Your task to perform on an android device: Open location settings Image 0: 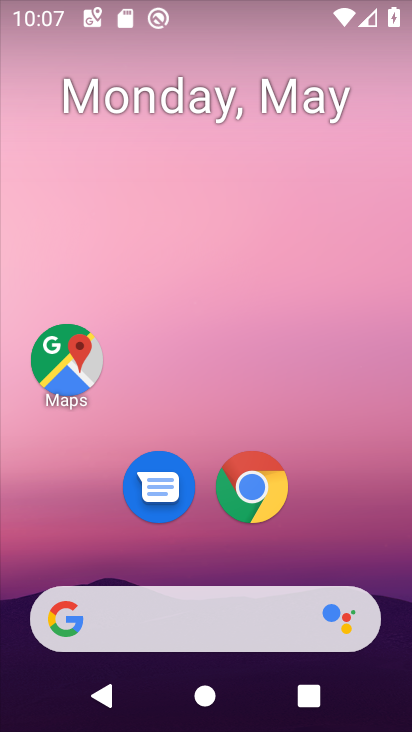
Step 0: drag from (320, 536) to (316, 55)
Your task to perform on an android device: Open location settings Image 1: 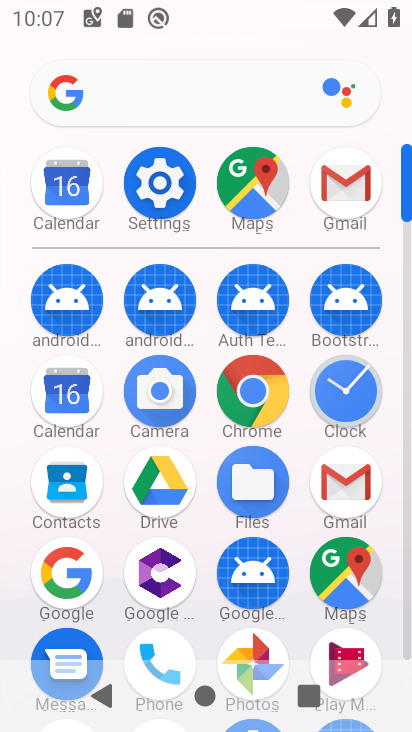
Step 1: click (164, 192)
Your task to perform on an android device: Open location settings Image 2: 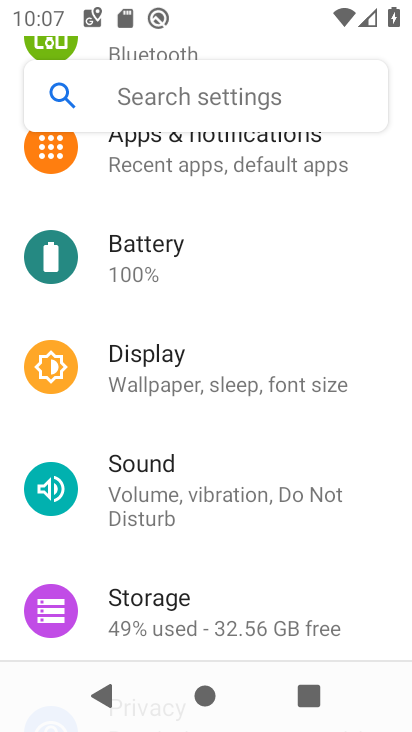
Step 2: click (187, 448)
Your task to perform on an android device: Open location settings Image 3: 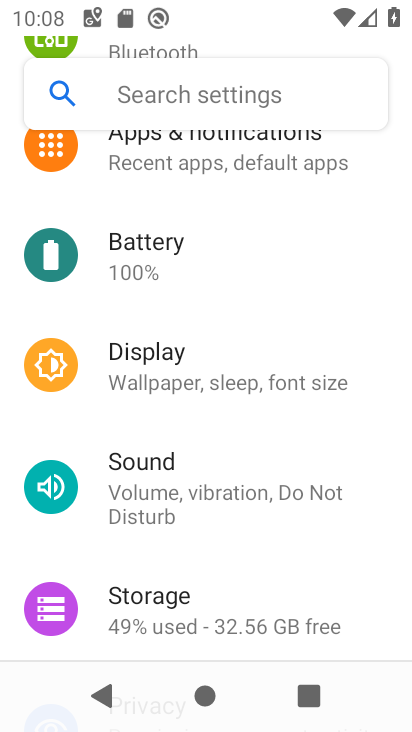
Step 3: drag from (208, 493) to (210, 387)
Your task to perform on an android device: Open location settings Image 4: 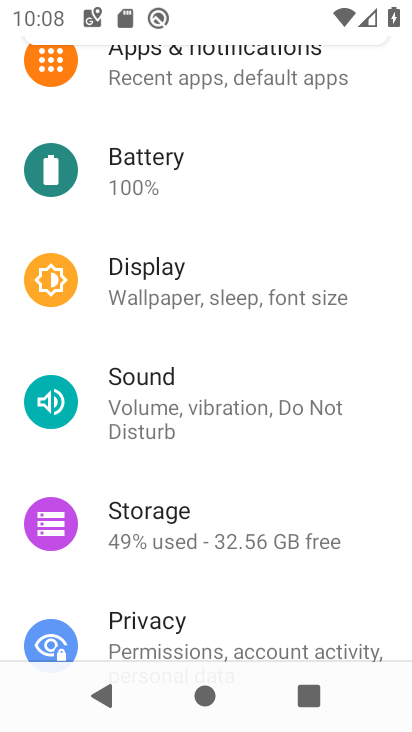
Step 4: drag from (169, 542) to (170, 370)
Your task to perform on an android device: Open location settings Image 5: 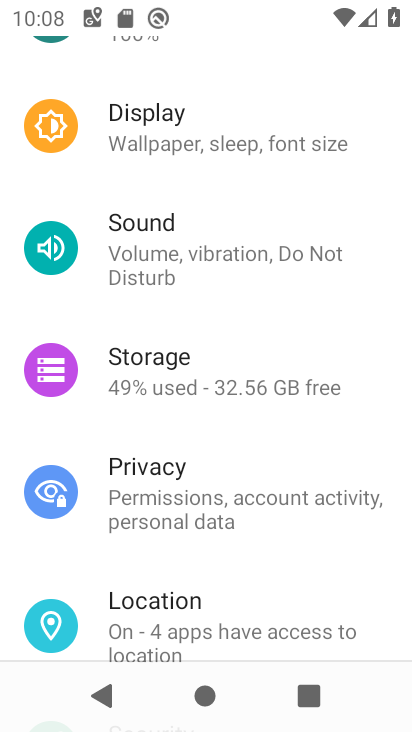
Step 5: drag from (179, 486) to (211, 267)
Your task to perform on an android device: Open location settings Image 6: 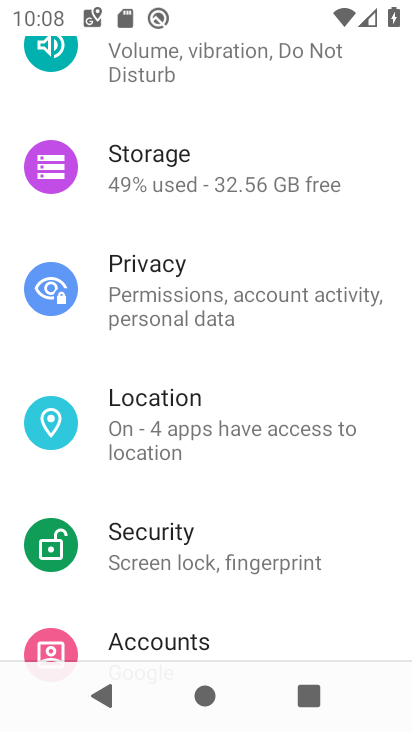
Step 6: click (190, 432)
Your task to perform on an android device: Open location settings Image 7: 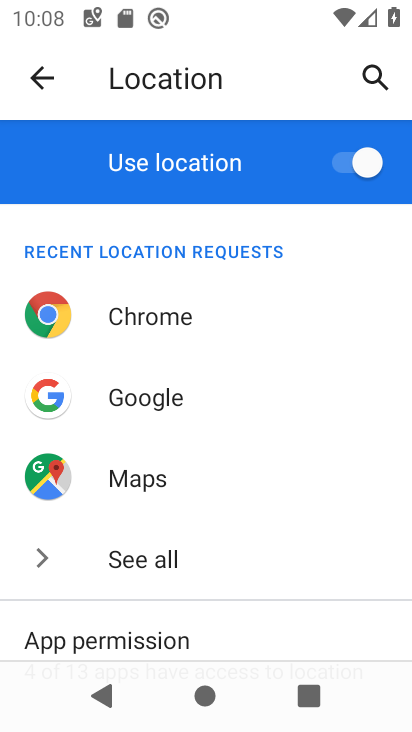
Step 7: task complete